Your task to perform on an android device: Go to Maps Image 0: 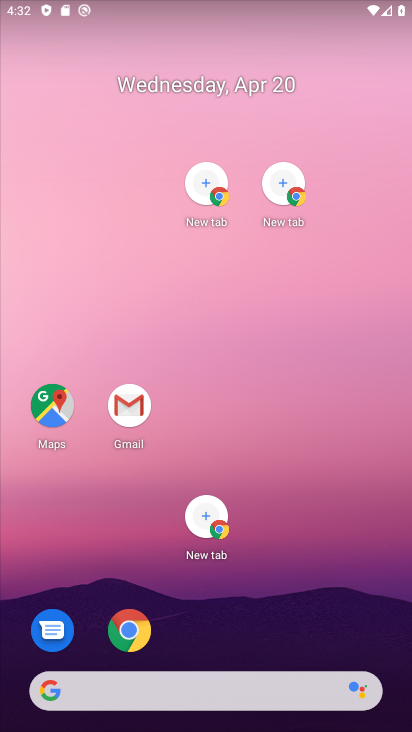
Step 0: click (114, 166)
Your task to perform on an android device: Go to Maps Image 1: 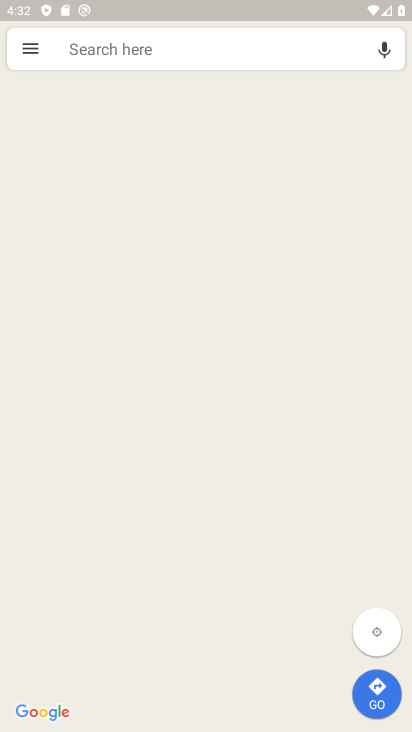
Step 1: task complete